Your task to perform on an android device: change notifications settings Image 0: 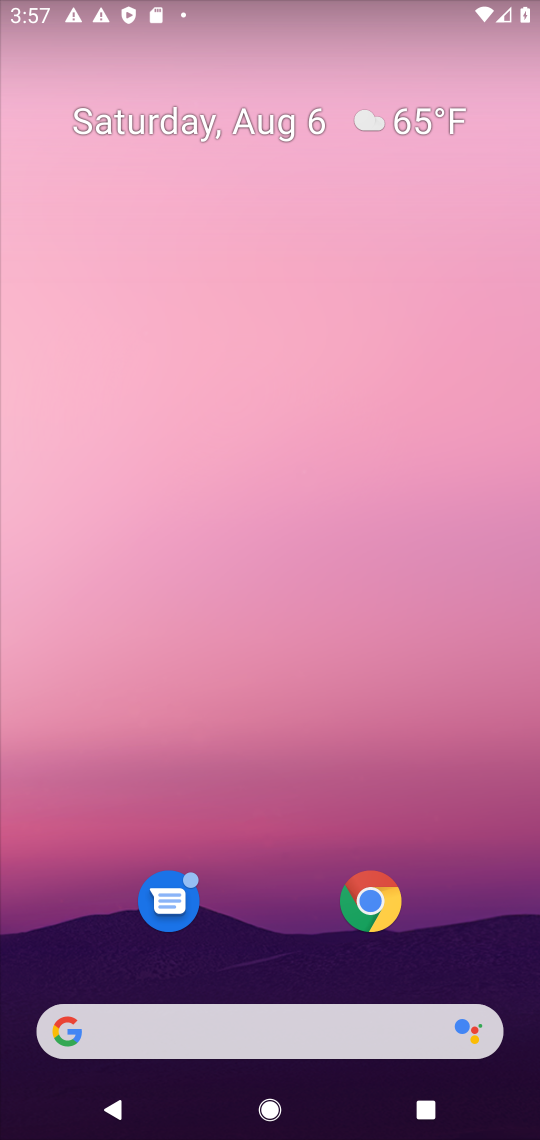
Step 0: drag from (282, 956) to (325, 532)
Your task to perform on an android device: change notifications settings Image 1: 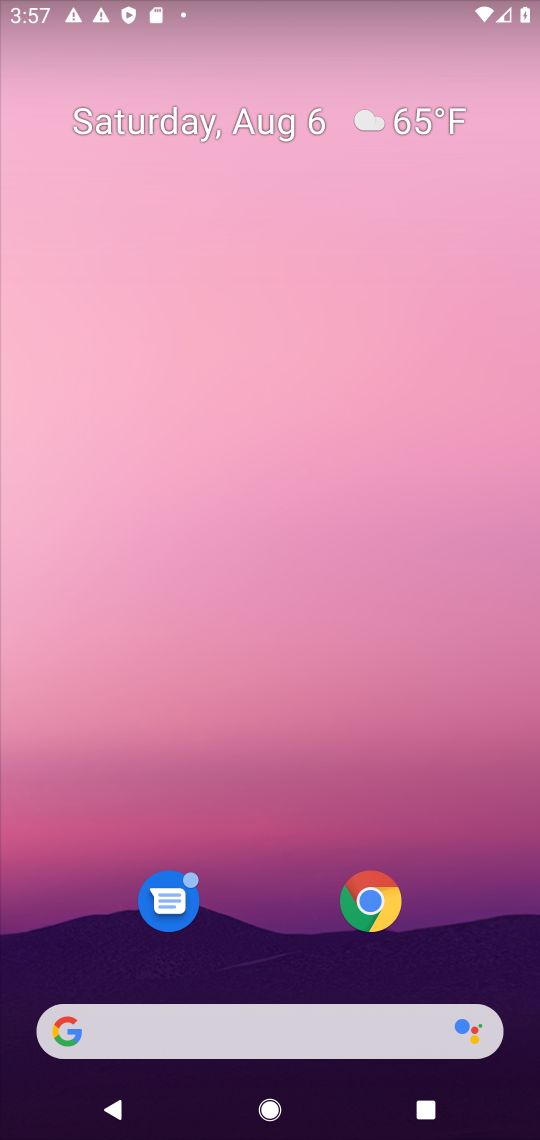
Step 1: drag from (238, 935) to (249, 21)
Your task to perform on an android device: change notifications settings Image 2: 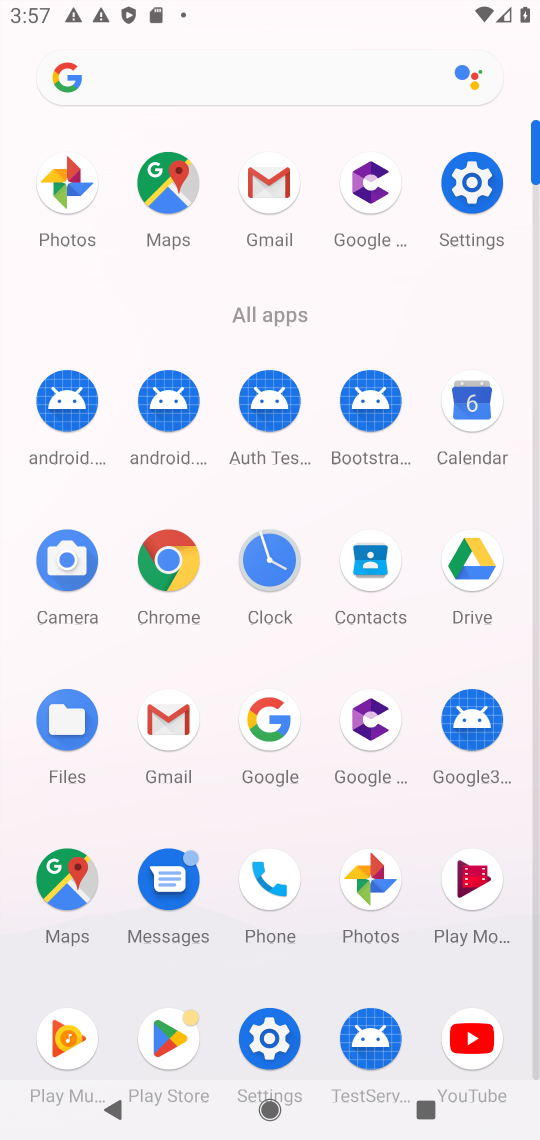
Step 2: click (260, 1032)
Your task to perform on an android device: change notifications settings Image 3: 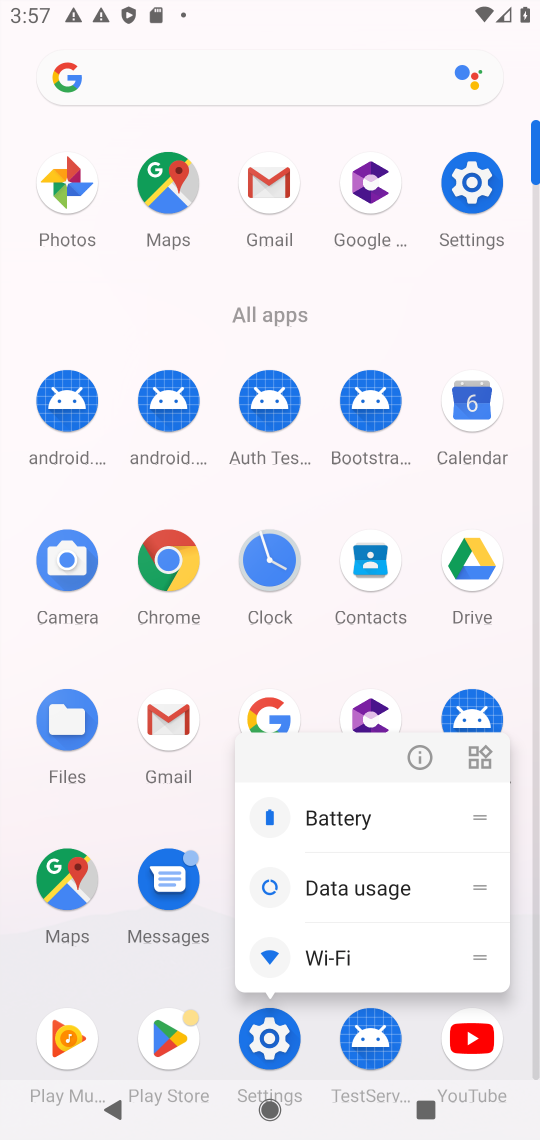
Step 3: click (268, 1039)
Your task to perform on an android device: change notifications settings Image 4: 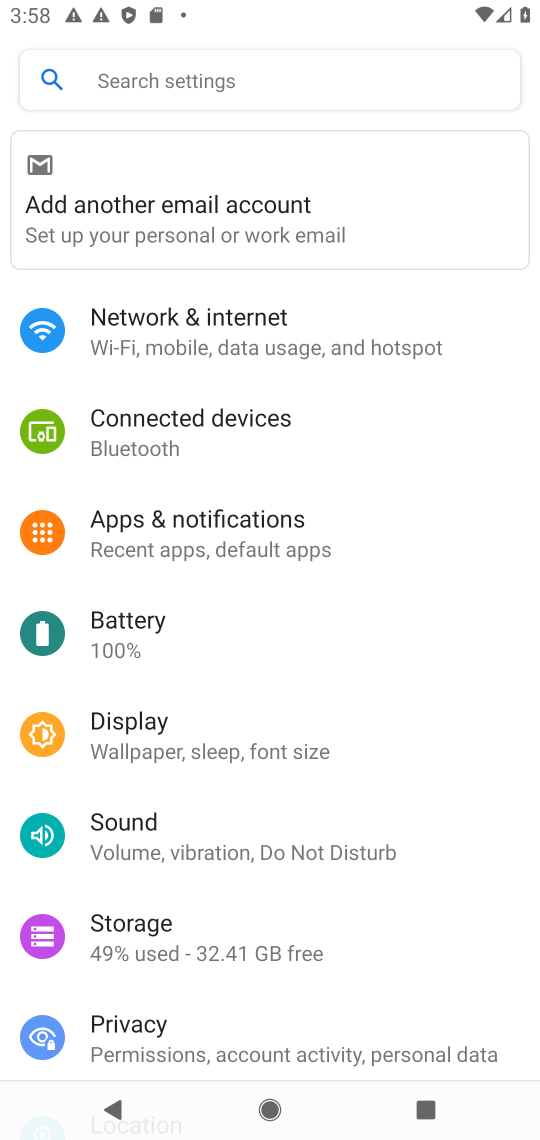
Step 4: click (138, 518)
Your task to perform on an android device: change notifications settings Image 5: 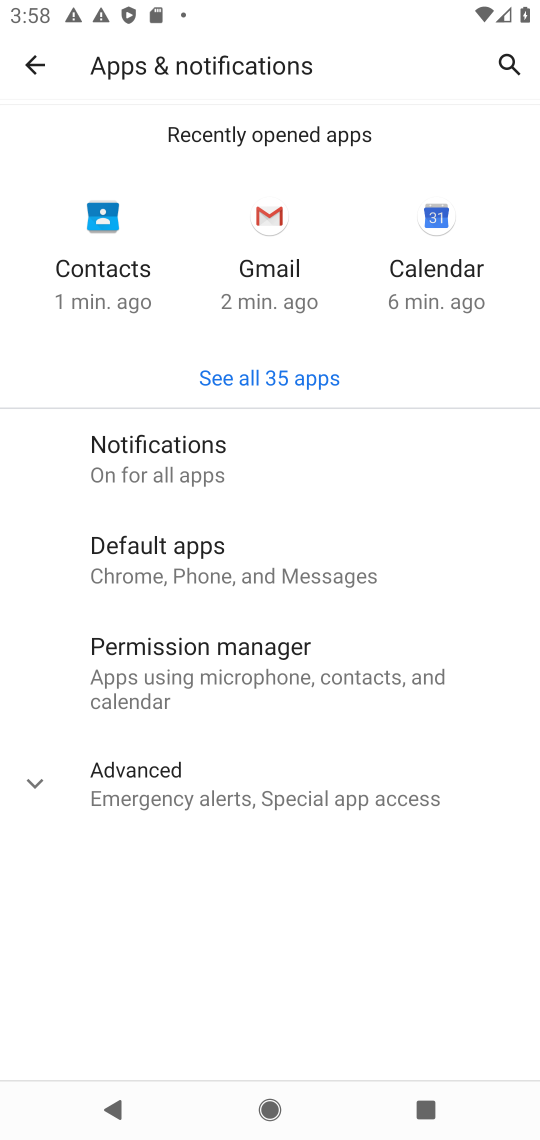
Step 5: click (146, 454)
Your task to perform on an android device: change notifications settings Image 6: 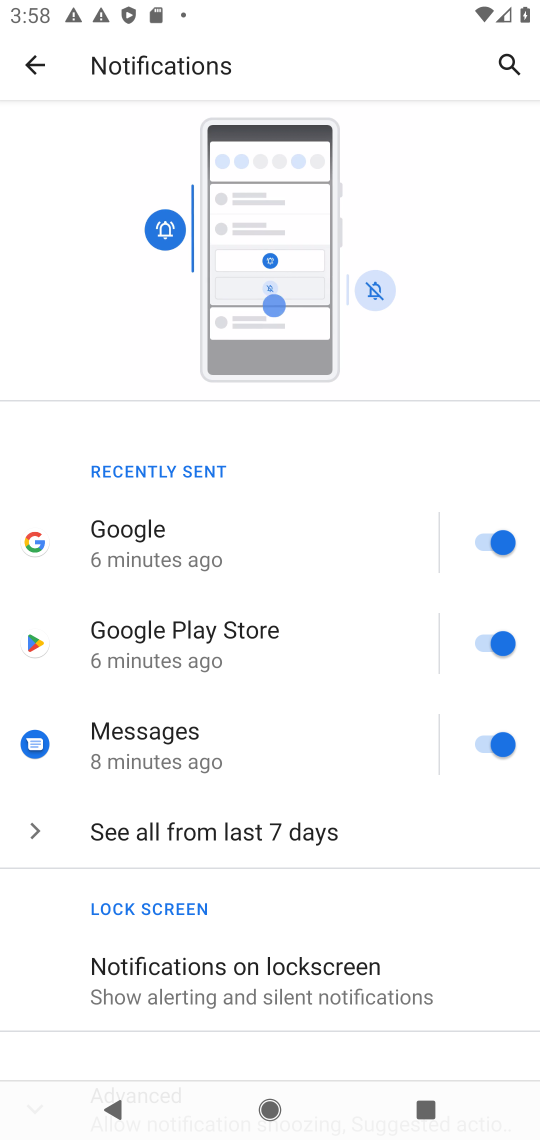
Step 6: task complete